Your task to perform on an android device: turn smart compose on in the gmail app Image 0: 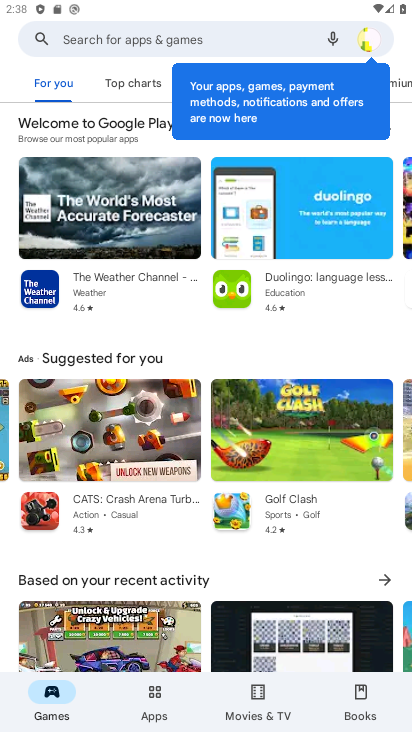
Step 0: press home button
Your task to perform on an android device: turn smart compose on in the gmail app Image 1: 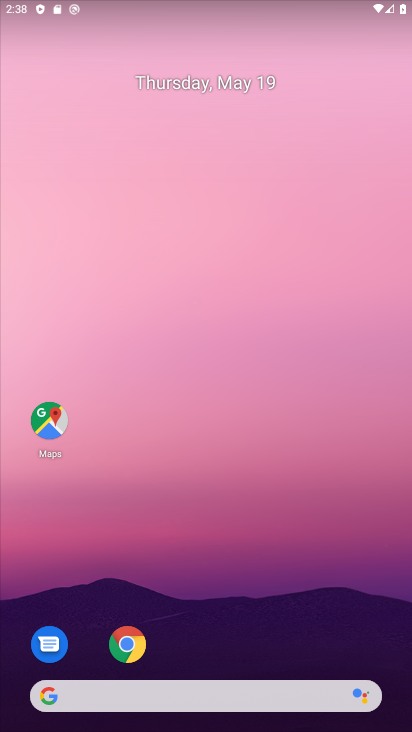
Step 1: drag from (244, 575) to (232, 224)
Your task to perform on an android device: turn smart compose on in the gmail app Image 2: 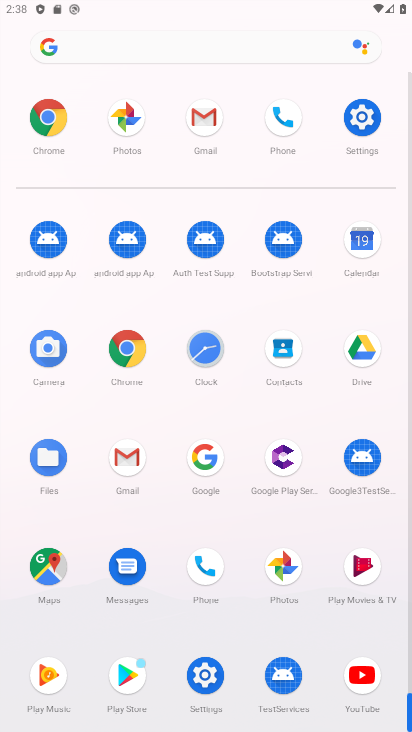
Step 2: click (128, 452)
Your task to perform on an android device: turn smart compose on in the gmail app Image 3: 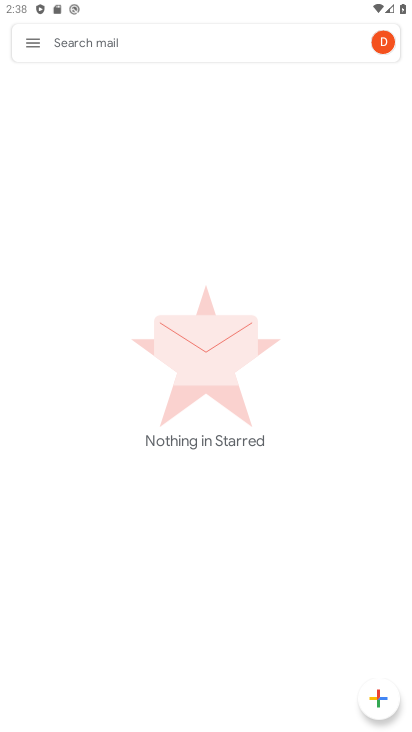
Step 3: click (29, 44)
Your task to perform on an android device: turn smart compose on in the gmail app Image 4: 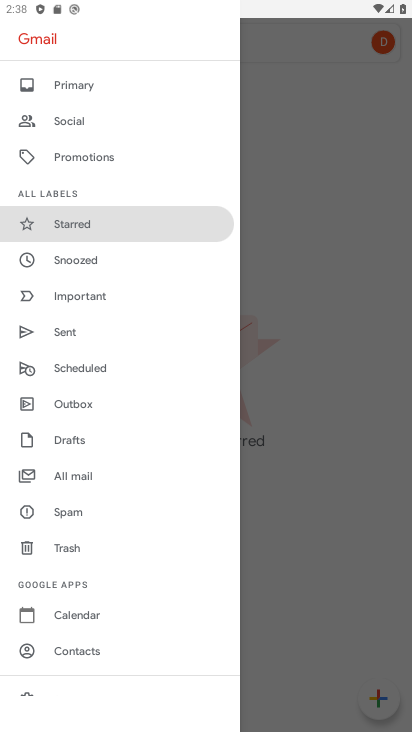
Step 4: drag from (135, 560) to (155, 302)
Your task to perform on an android device: turn smart compose on in the gmail app Image 5: 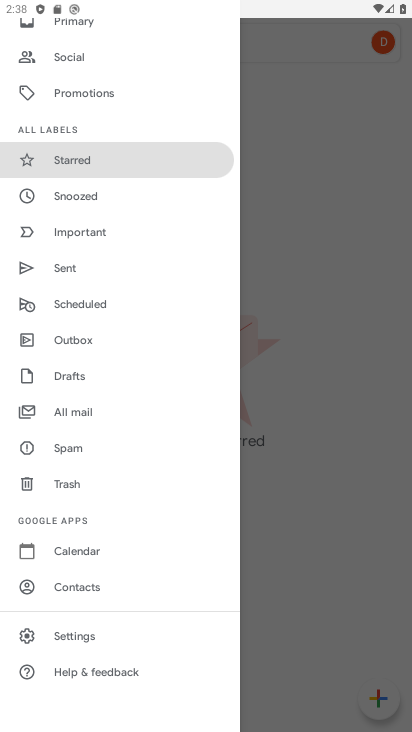
Step 5: click (121, 638)
Your task to perform on an android device: turn smart compose on in the gmail app Image 6: 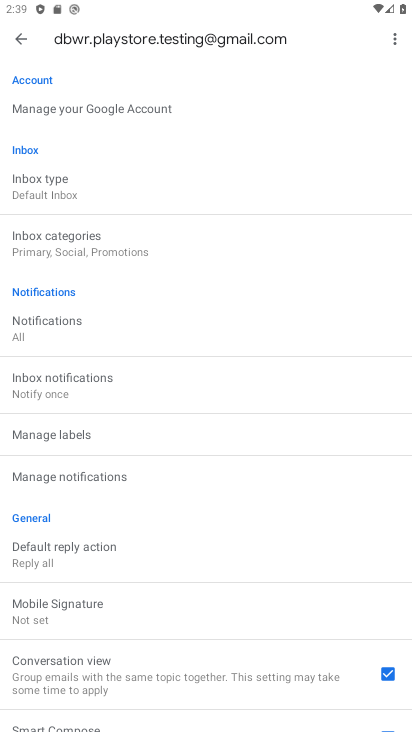
Step 6: task complete